Your task to perform on an android device: search for starred emails in the gmail app Image 0: 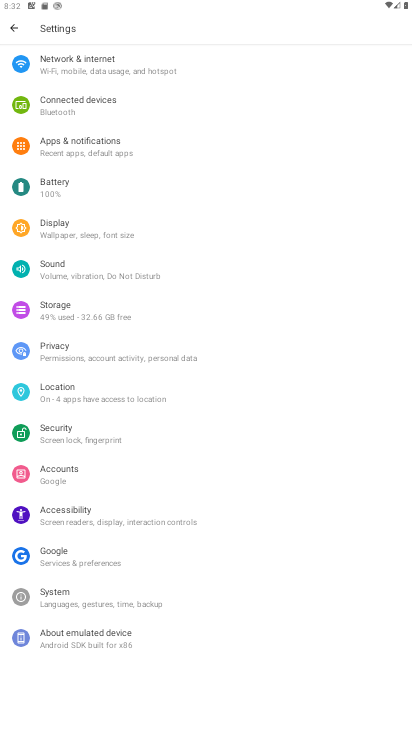
Step 0: press home button
Your task to perform on an android device: search for starred emails in the gmail app Image 1: 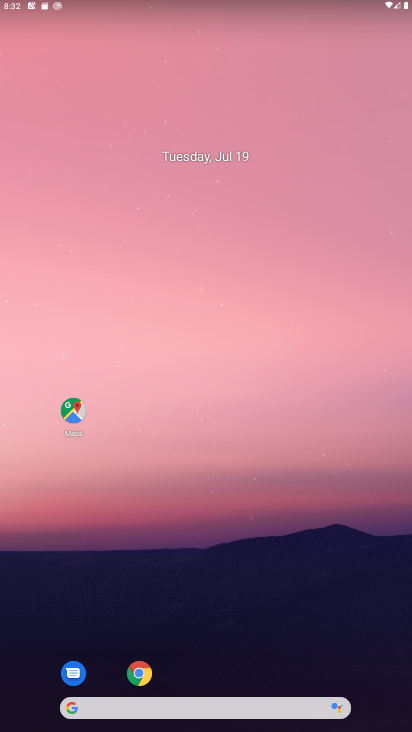
Step 1: drag from (371, 657) to (339, 127)
Your task to perform on an android device: search for starred emails in the gmail app Image 2: 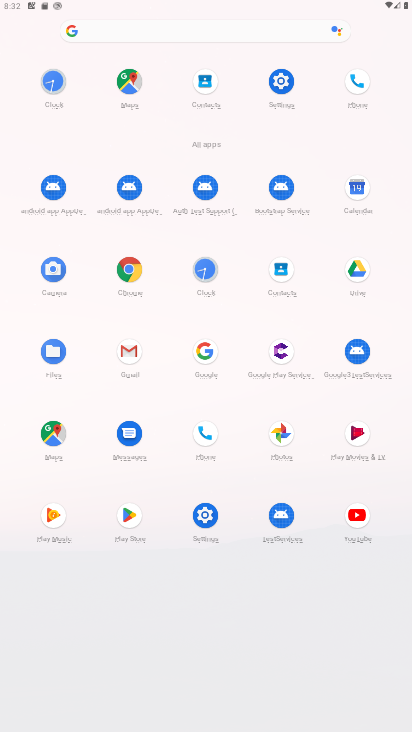
Step 2: click (128, 351)
Your task to perform on an android device: search for starred emails in the gmail app Image 3: 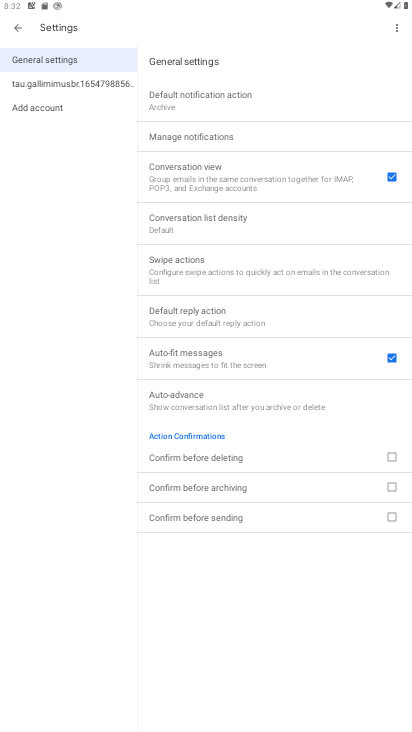
Step 3: press back button
Your task to perform on an android device: search for starred emails in the gmail app Image 4: 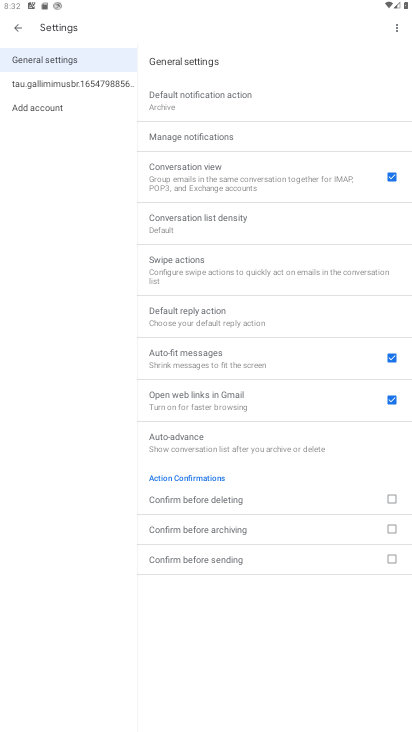
Step 4: press back button
Your task to perform on an android device: search for starred emails in the gmail app Image 5: 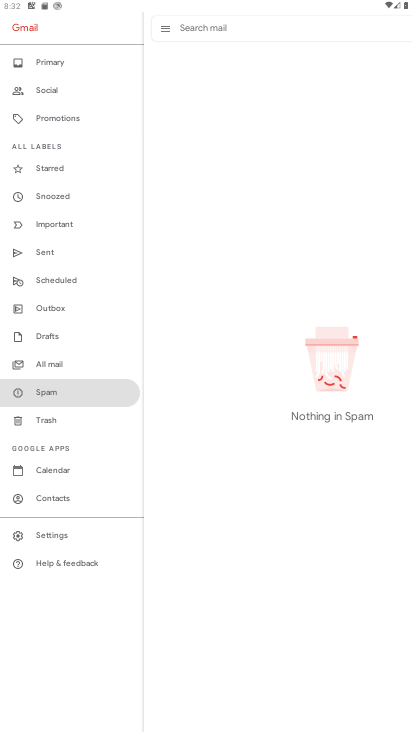
Step 5: click (48, 164)
Your task to perform on an android device: search for starred emails in the gmail app Image 6: 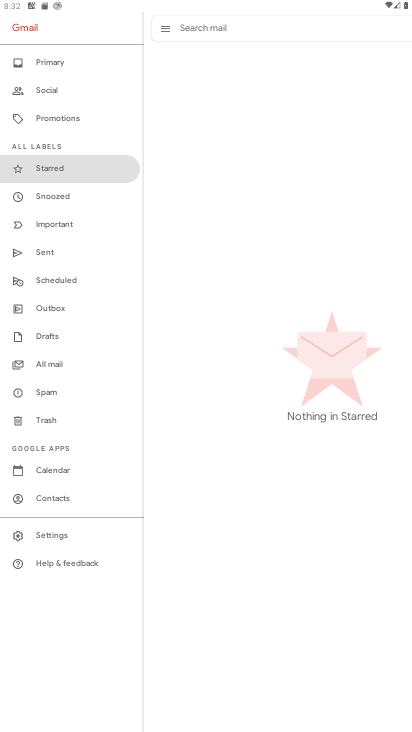
Step 6: task complete